Your task to perform on an android device: remove spam from my inbox in the gmail app Image 0: 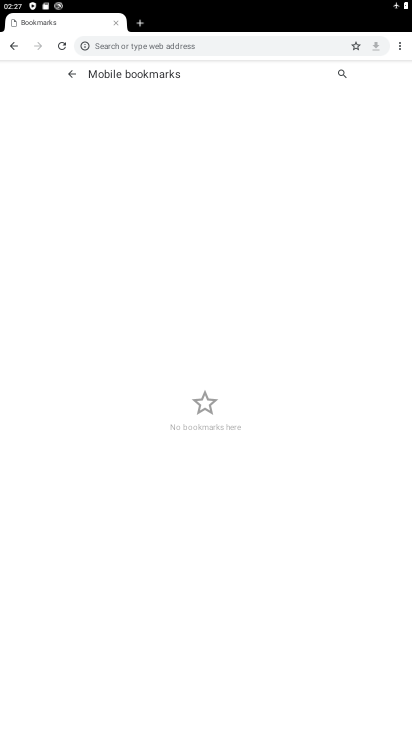
Step 0: press home button
Your task to perform on an android device: remove spam from my inbox in the gmail app Image 1: 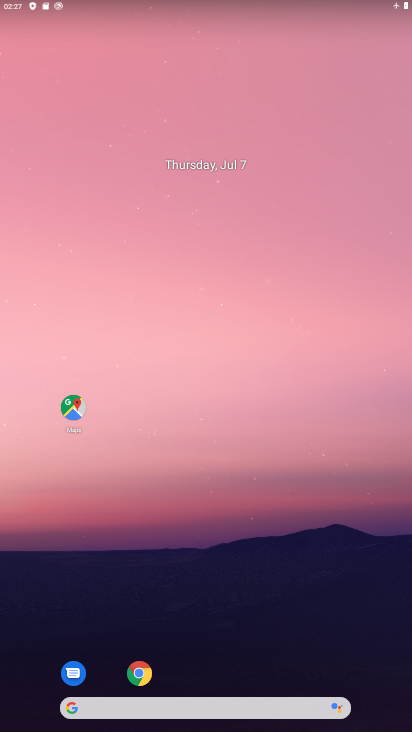
Step 1: drag from (253, 640) to (243, 50)
Your task to perform on an android device: remove spam from my inbox in the gmail app Image 2: 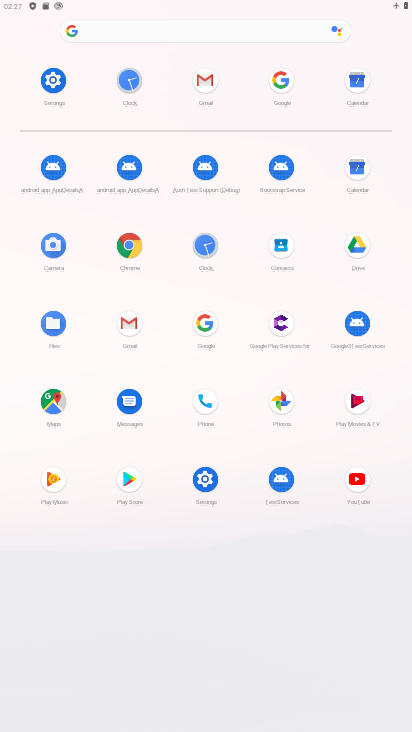
Step 2: click (210, 93)
Your task to perform on an android device: remove spam from my inbox in the gmail app Image 3: 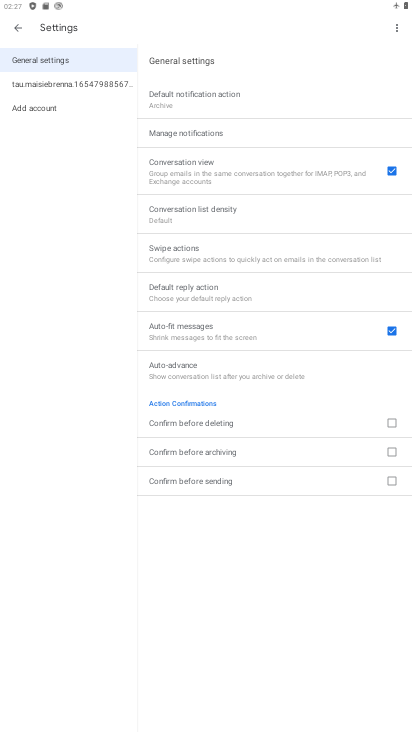
Step 3: click (16, 36)
Your task to perform on an android device: remove spam from my inbox in the gmail app Image 4: 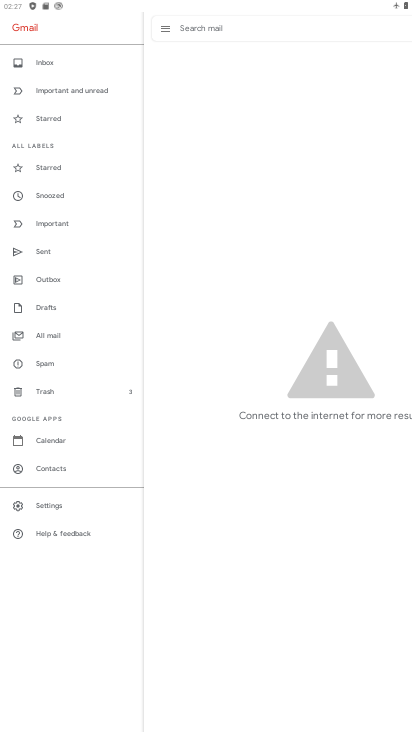
Step 4: click (51, 365)
Your task to perform on an android device: remove spam from my inbox in the gmail app Image 5: 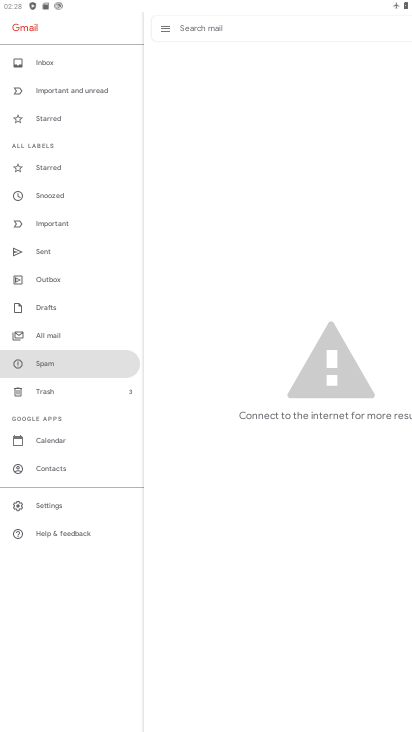
Step 5: task complete